Your task to perform on an android device: What's the weather going to be tomorrow? Image 0: 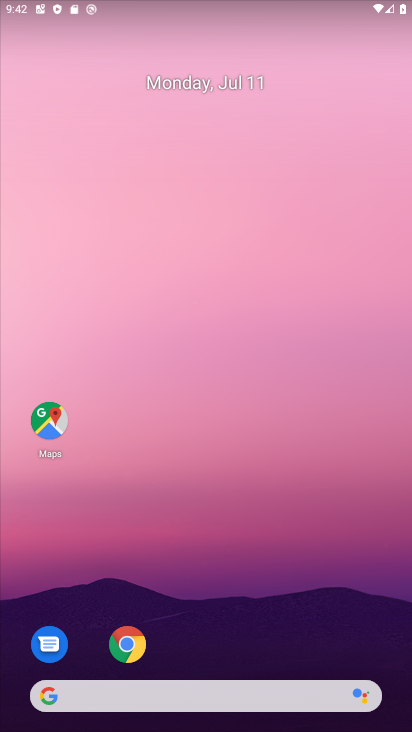
Step 0: click (167, 696)
Your task to perform on an android device: What's the weather going to be tomorrow? Image 1: 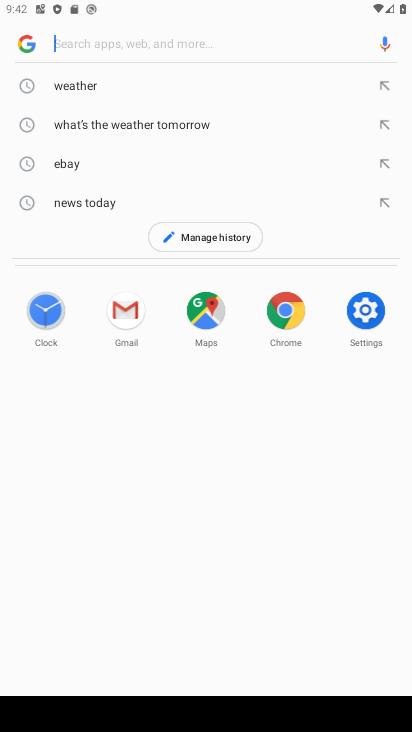
Step 1: click (129, 122)
Your task to perform on an android device: What's the weather going to be tomorrow? Image 2: 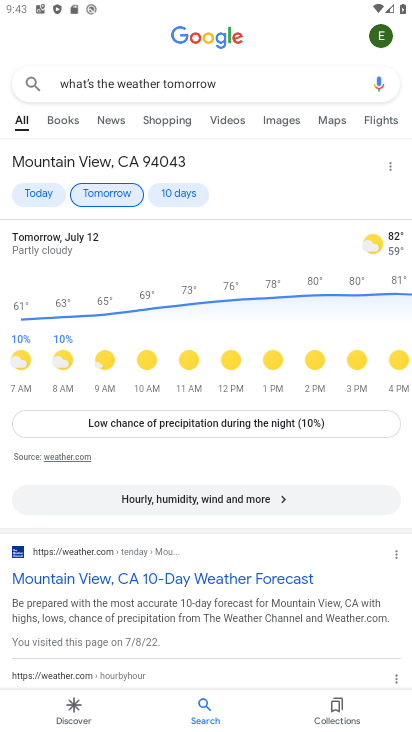
Step 2: task complete